Your task to perform on an android device: Open the calendar and show me this week's events? Image 0: 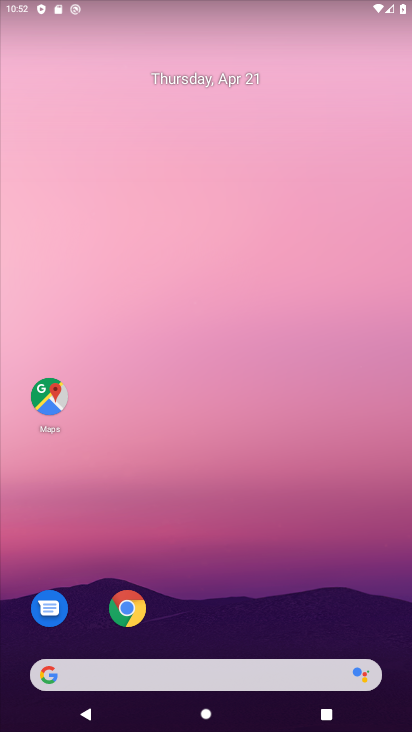
Step 0: drag from (188, 608) to (126, 90)
Your task to perform on an android device: Open the calendar and show me this week's events? Image 1: 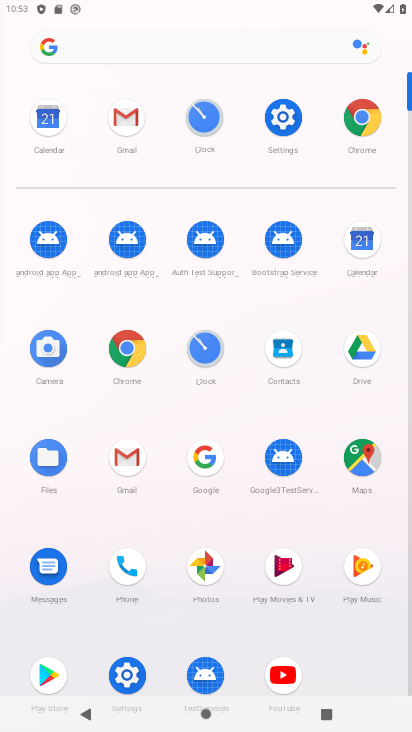
Step 1: click (46, 118)
Your task to perform on an android device: Open the calendar and show me this week's events? Image 2: 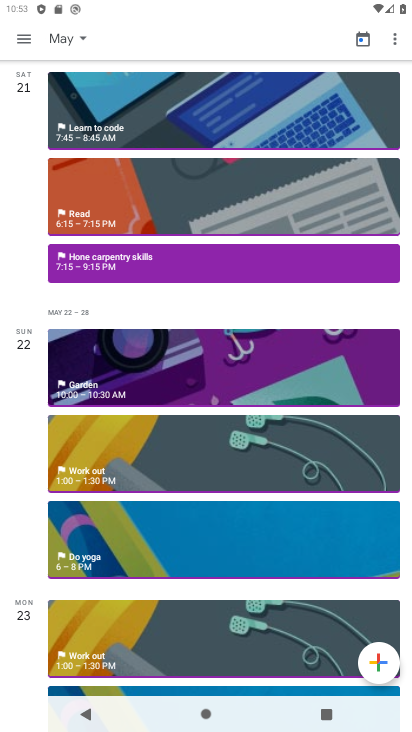
Step 2: task complete